Your task to perform on an android device: Open the web browser Image 0: 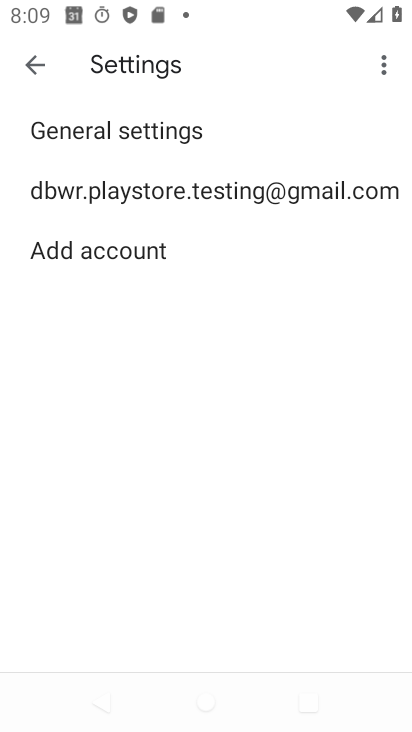
Step 0: press home button
Your task to perform on an android device: Open the web browser Image 1: 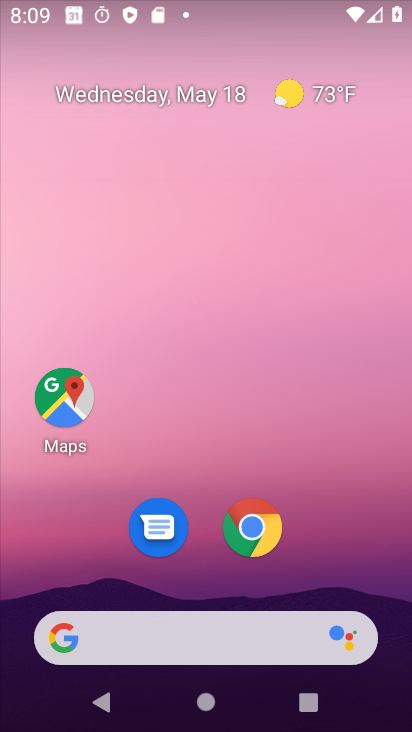
Step 1: click (258, 526)
Your task to perform on an android device: Open the web browser Image 2: 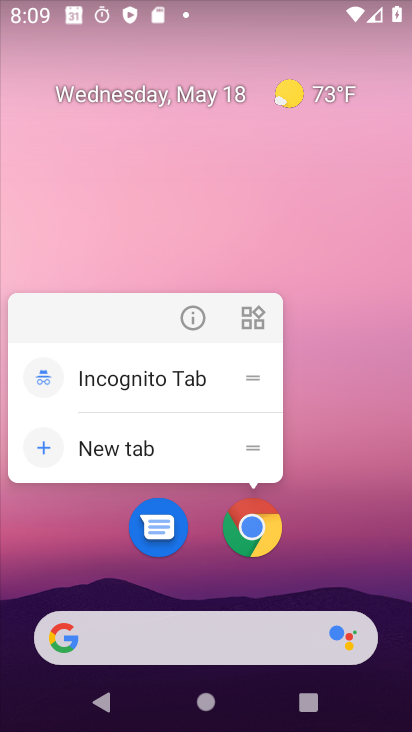
Step 2: click (258, 526)
Your task to perform on an android device: Open the web browser Image 3: 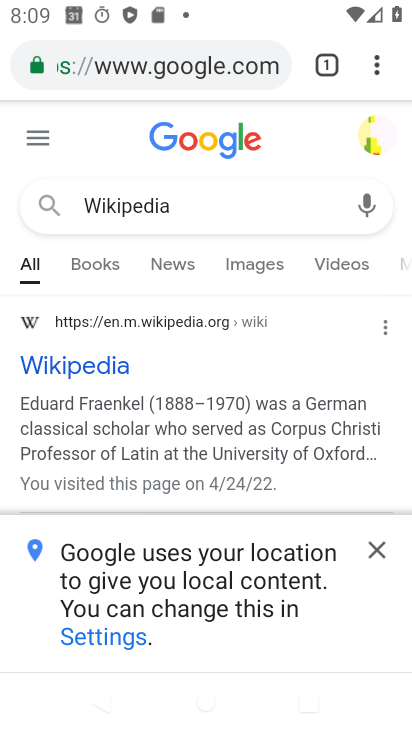
Step 3: click (377, 63)
Your task to perform on an android device: Open the web browser Image 4: 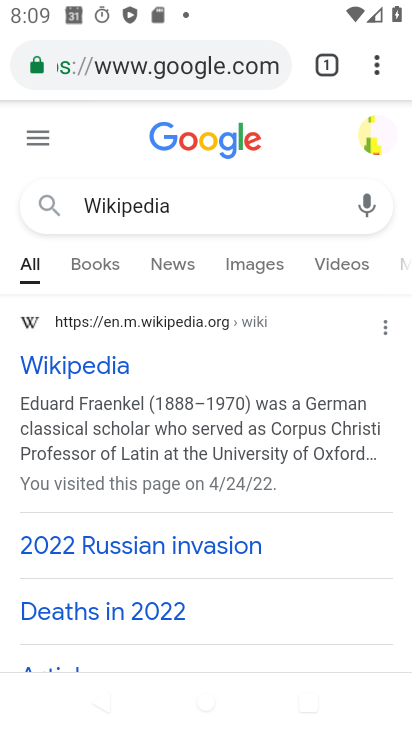
Step 4: task complete